Your task to perform on an android device: open a new tab in the chrome app Image 0: 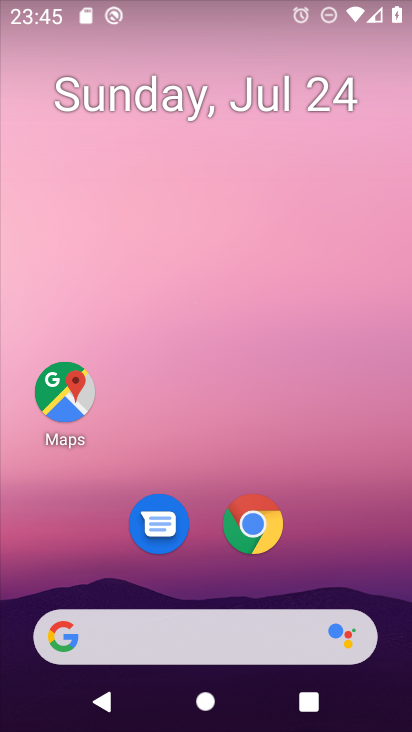
Step 0: press home button
Your task to perform on an android device: open a new tab in the chrome app Image 1: 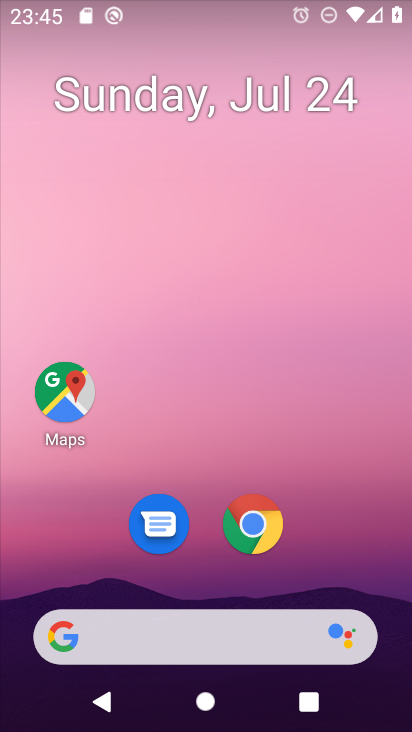
Step 1: click (252, 533)
Your task to perform on an android device: open a new tab in the chrome app Image 2: 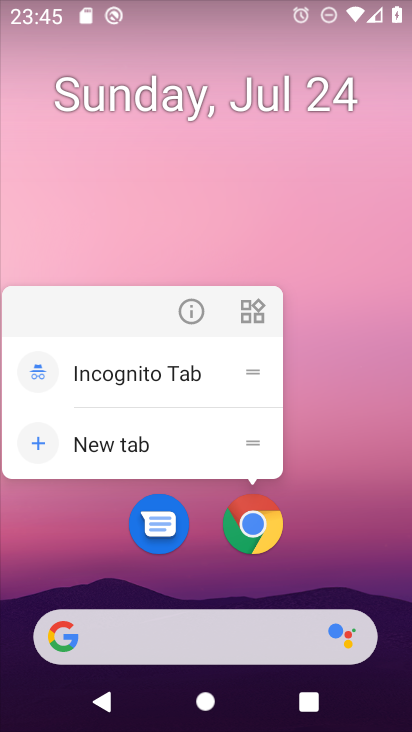
Step 2: click (262, 516)
Your task to perform on an android device: open a new tab in the chrome app Image 3: 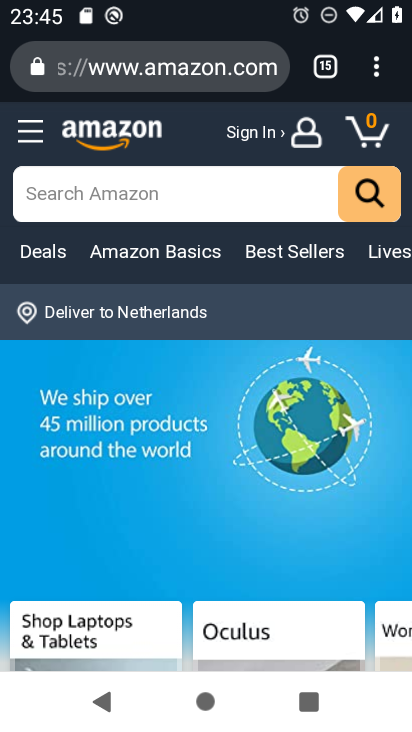
Step 3: task complete